Your task to perform on an android device: turn off sleep mode Image 0: 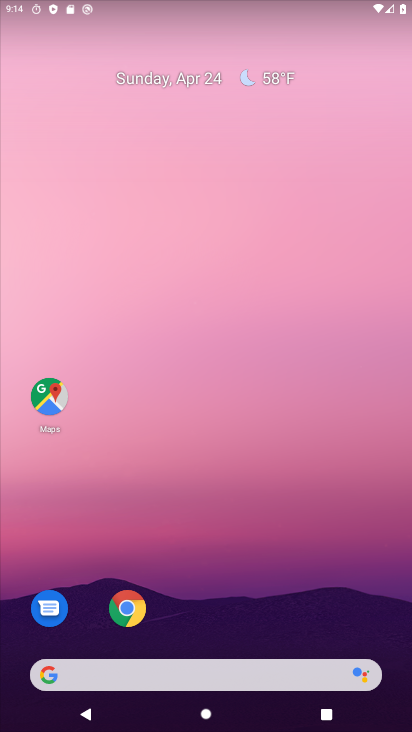
Step 0: drag from (362, 616) to (363, 84)
Your task to perform on an android device: turn off sleep mode Image 1: 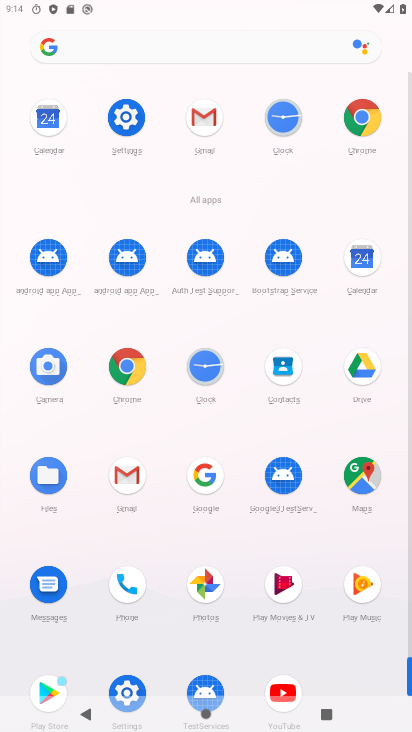
Step 1: drag from (322, 666) to (309, 396)
Your task to perform on an android device: turn off sleep mode Image 2: 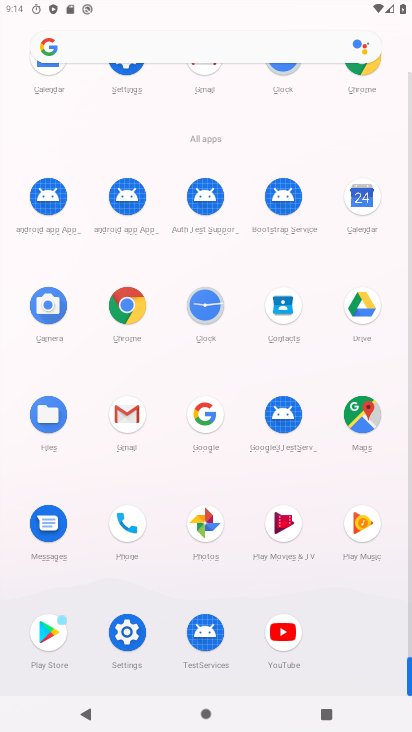
Step 2: click (126, 632)
Your task to perform on an android device: turn off sleep mode Image 3: 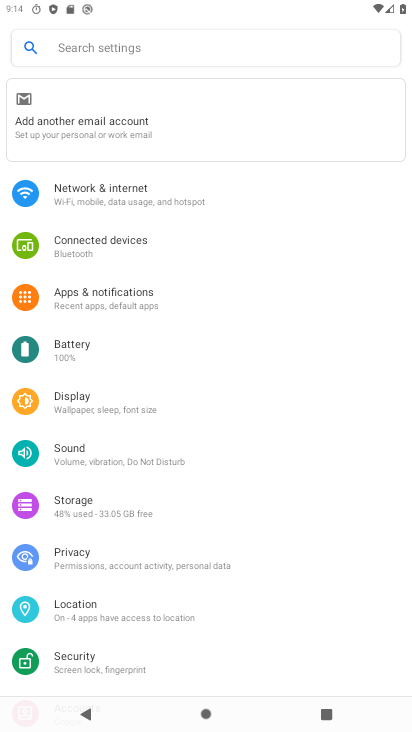
Step 3: drag from (310, 609) to (334, 388)
Your task to perform on an android device: turn off sleep mode Image 4: 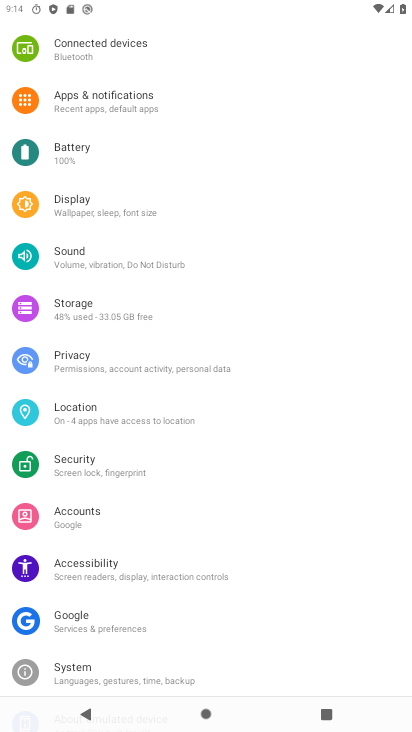
Step 4: drag from (305, 612) to (311, 419)
Your task to perform on an android device: turn off sleep mode Image 5: 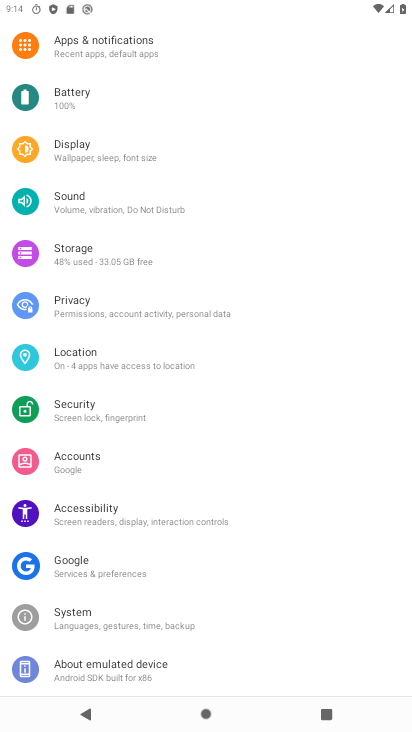
Step 5: drag from (303, 324) to (312, 435)
Your task to perform on an android device: turn off sleep mode Image 6: 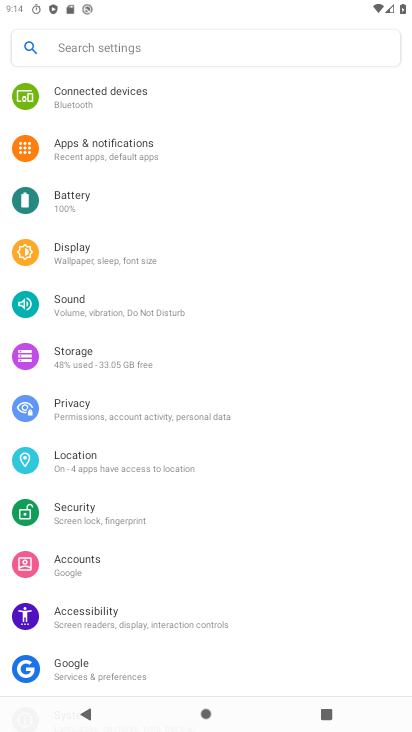
Step 6: drag from (292, 308) to (294, 445)
Your task to perform on an android device: turn off sleep mode Image 7: 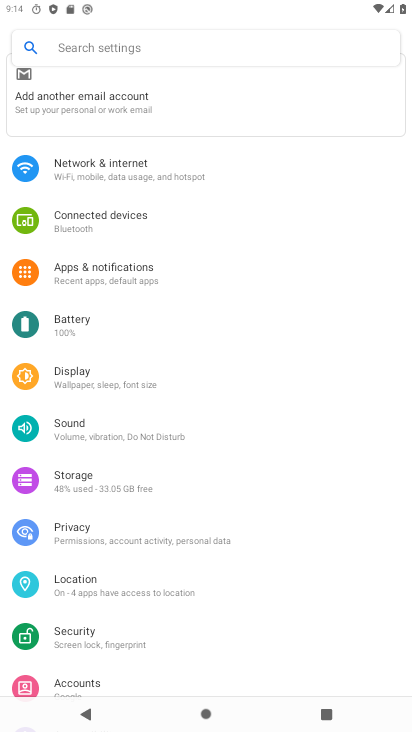
Step 7: drag from (290, 307) to (289, 423)
Your task to perform on an android device: turn off sleep mode Image 8: 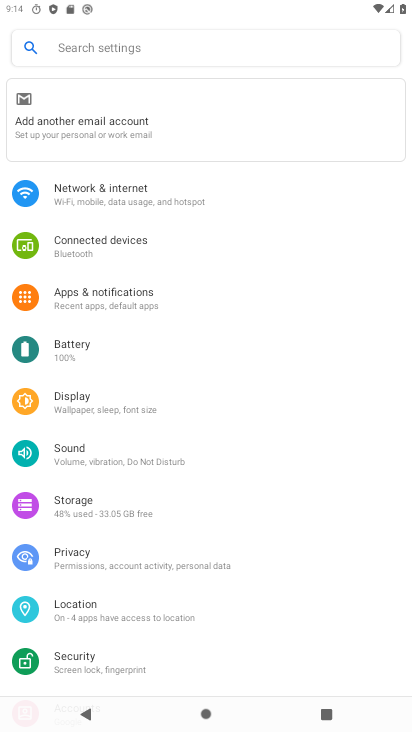
Step 8: click (146, 408)
Your task to perform on an android device: turn off sleep mode Image 9: 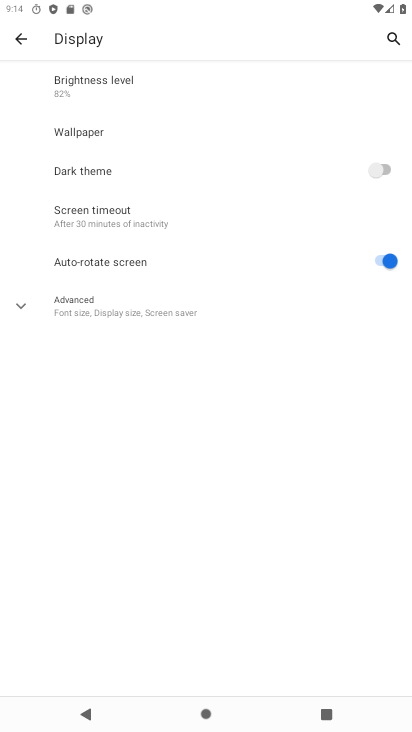
Step 9: click (201, 316)
Your task to perform on an android device: turn off sleep mode Image 10: 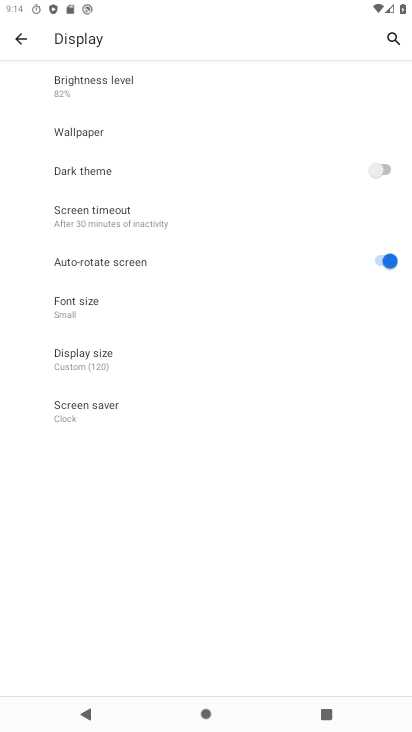
Step 10: task complete